Your task to perform on an android device: Open display settings Image 0: 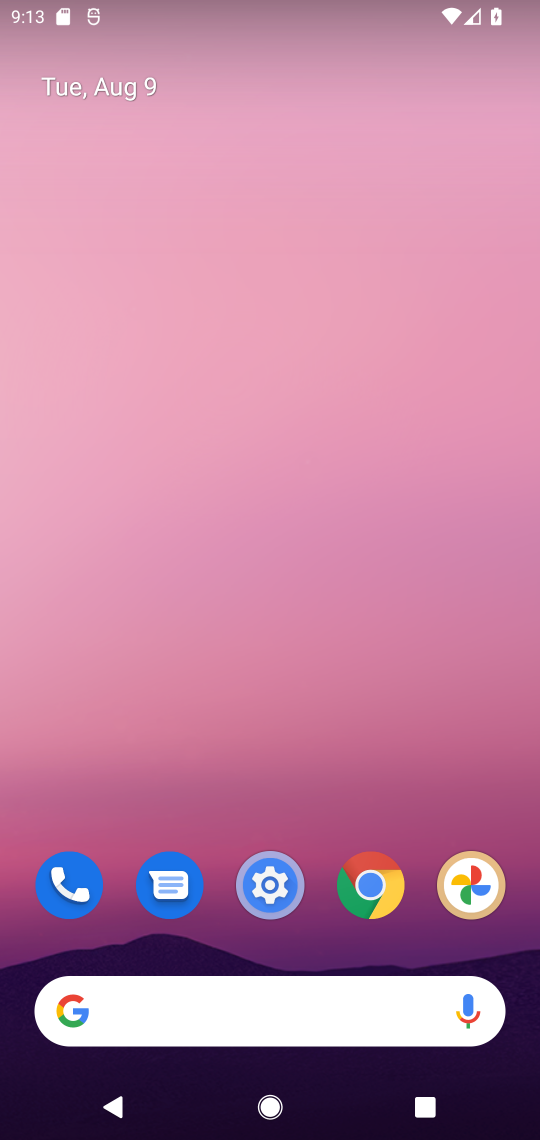
Step 0: click (261, 887)
Your task to perform on an android device: Open display settings Image 1: 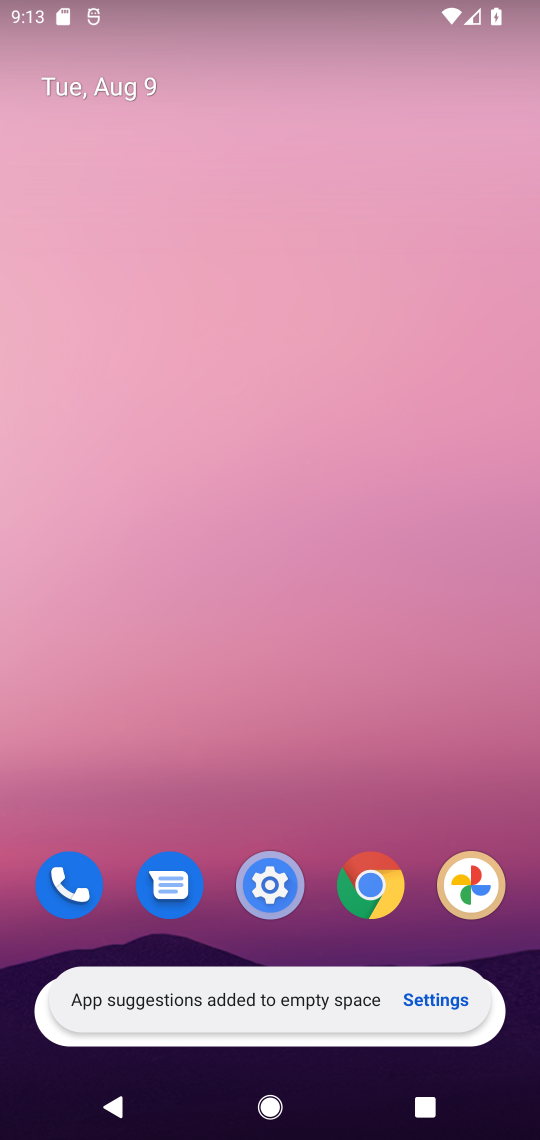
Step 1: click (279, 877)
Your task to perform on an android device: Open display settings Image 2: 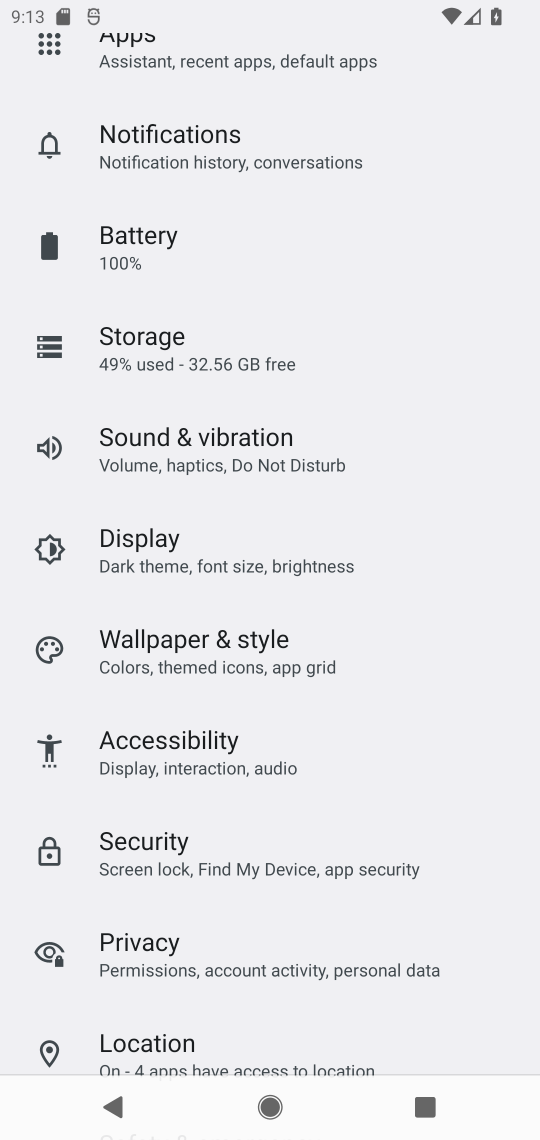
Step 2: click (172, 570)
Your task to perform on an android device: Open display settings Image 3: 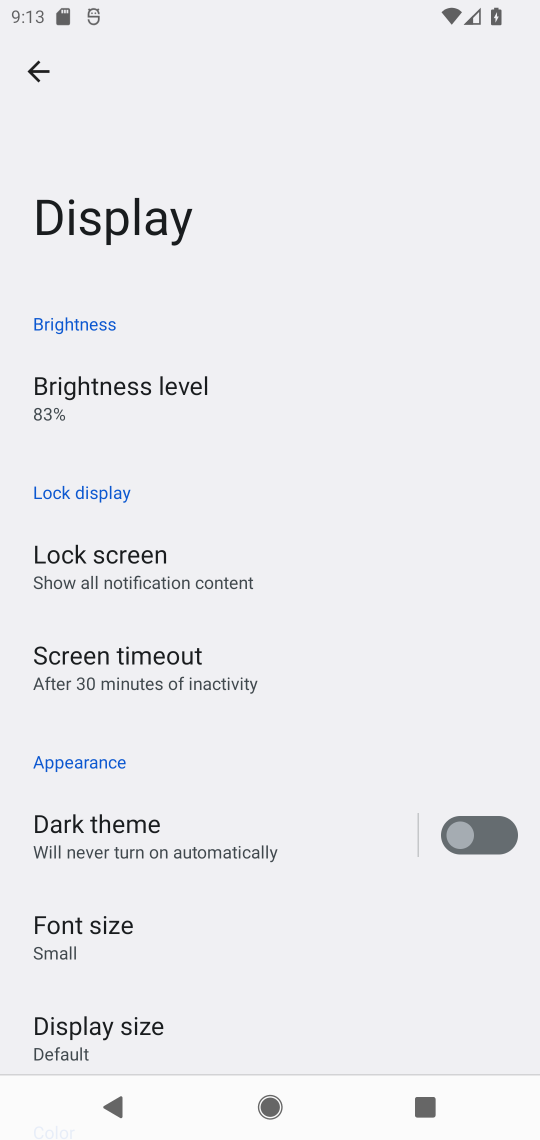
Step 3: task complete